Your task to perform on an android device: open chrome and create a bookmark for the current page Image 0: 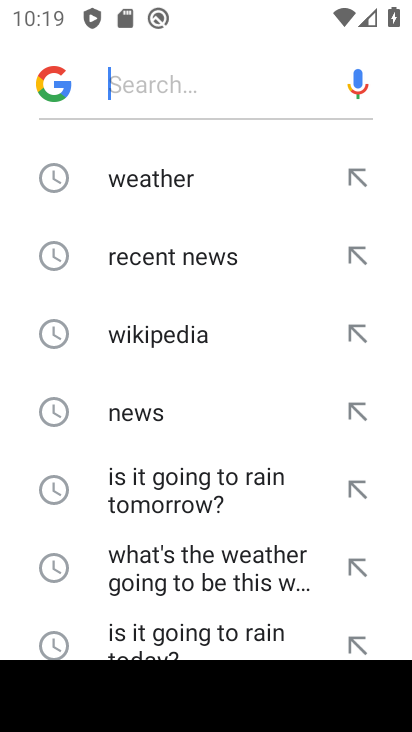
Step 0: press home button
Your task to perform on an android device: open chrome and create a bookmark for the current page Image 1: 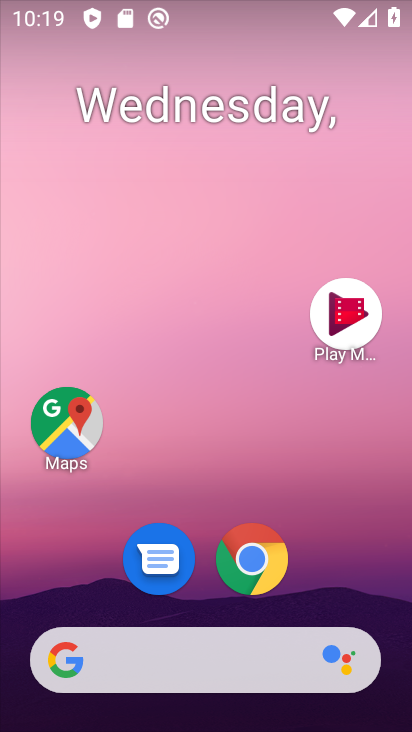
Step 1: click (271, 555)
Your task to perform on an android device: open chrome and create a bookmark for the current page Image 2: 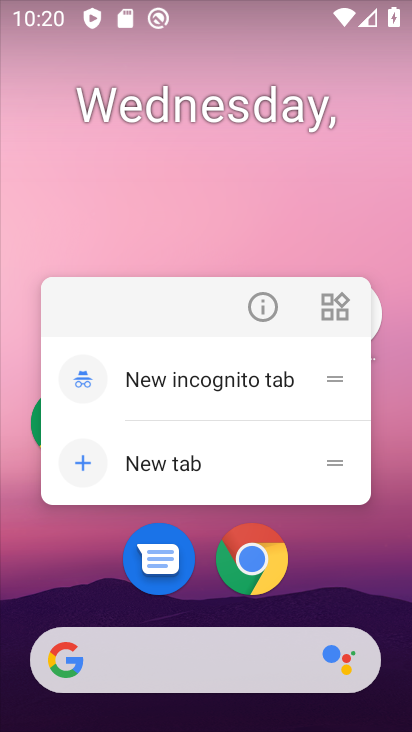
Step 2: click (271, 555)
Your task to perform on an android device: open chrome and create a bookmark for the current page Image 3: 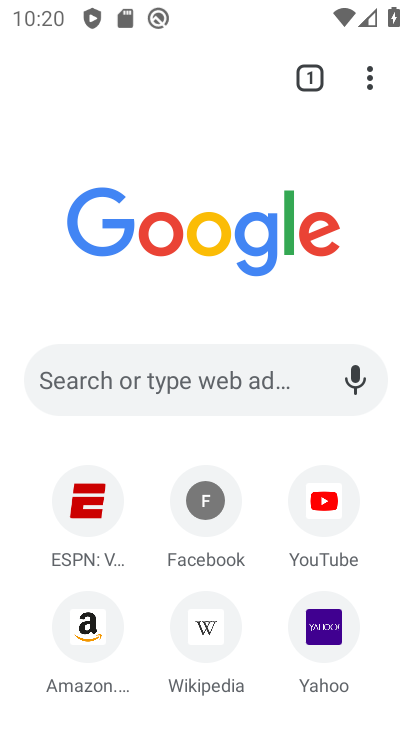
Step 3: click (371, 70)
Your task to perform on an android device: open chrome and create a bookmark for the current page Image 4: 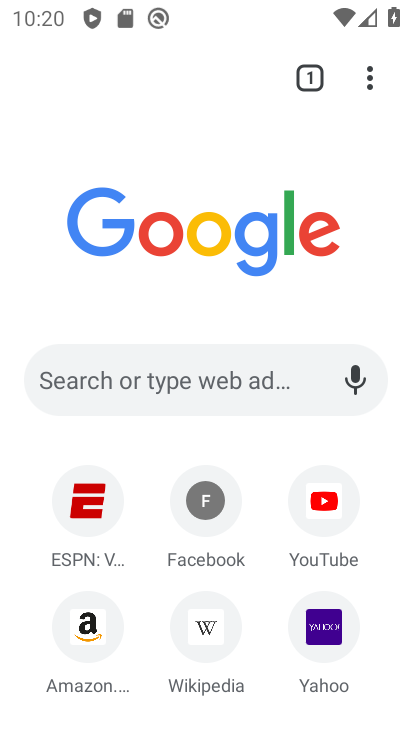
Step 4: click (370, 73)
Your task to perform on an android device: open chrome and create a bookmark for the current page Image 5: 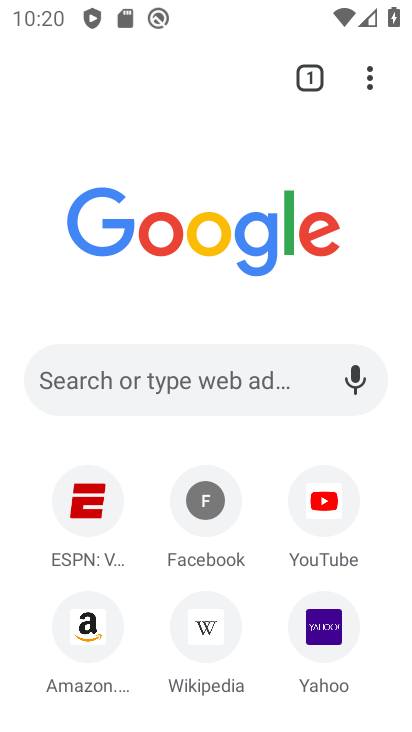
Step 5: click (374, 81)
Your task to perform on an android device: open chrome and create a bookmark for the current page Image 6: 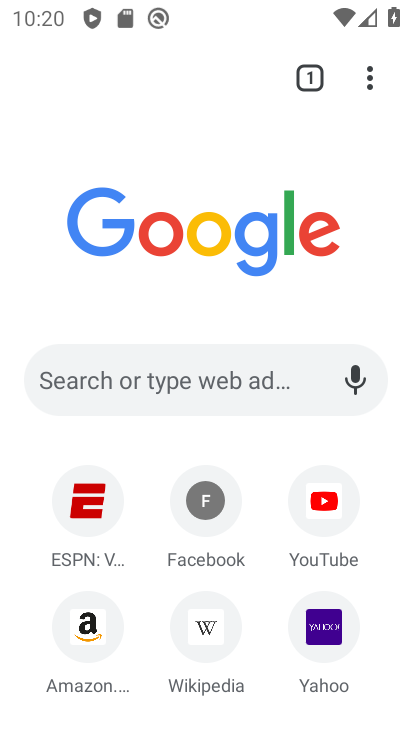
Step 6: drag from (373, 78) to (129, 76)
Your task to perform on an android device: open chrome and create a bookmark for the current page Image 7: 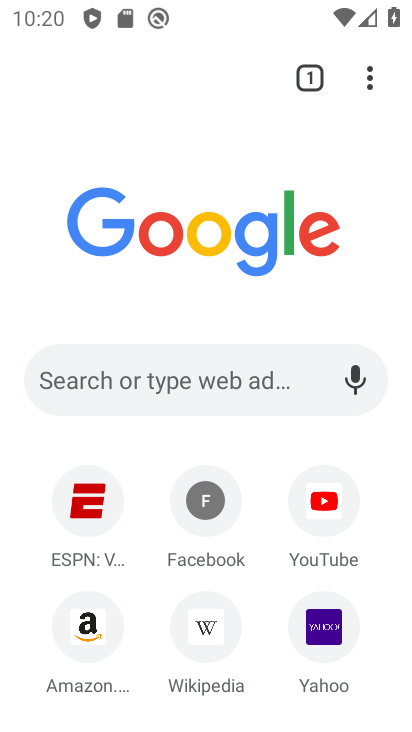
Step 7: click (132, 78)
Your task to perform on an android device: open chrome and create a bookmark for the current page Image 8: 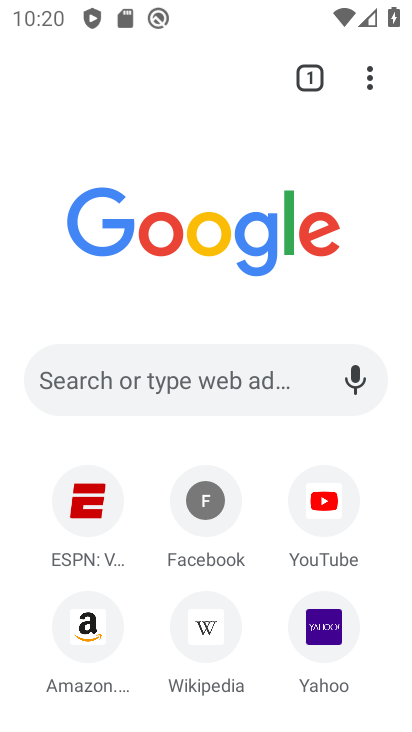
Step 8: task complete